Your task to perform on an android device: What is the news today? Image 0: 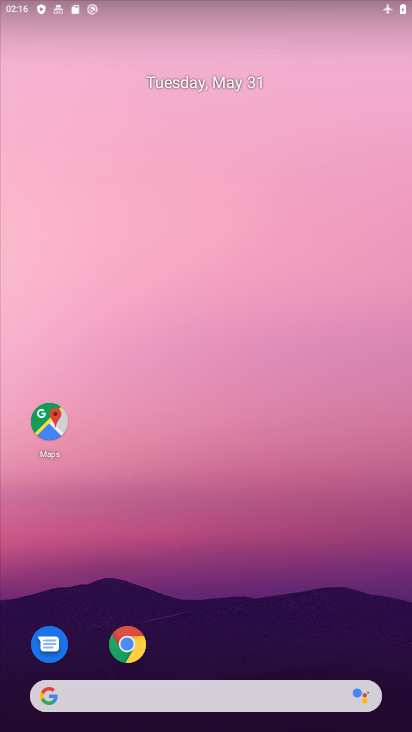
Step 0: drag from (250, 632) to (191, 202)
Your task to perform on an android device: What is the news today? Image 1: 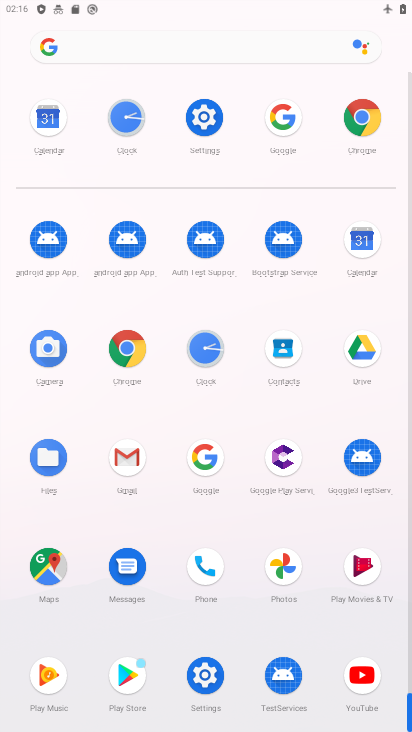
Step 1: click (120, 351)
Your task to perform on an android device: What is the news today? Image 2: 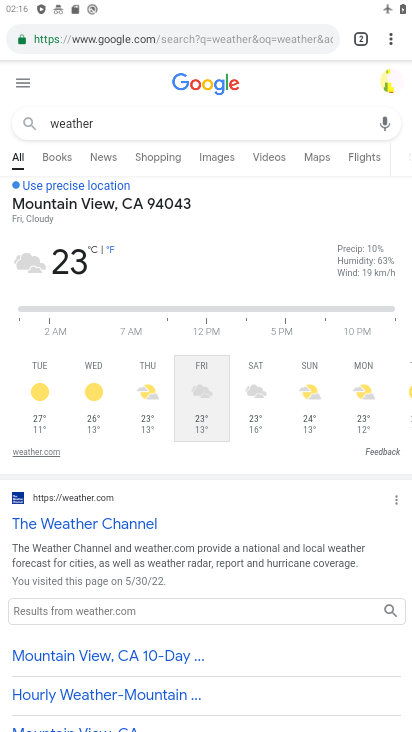
Step 2: click (211, 28)
Your task to perform on an android device: What is the news today? Image 3: 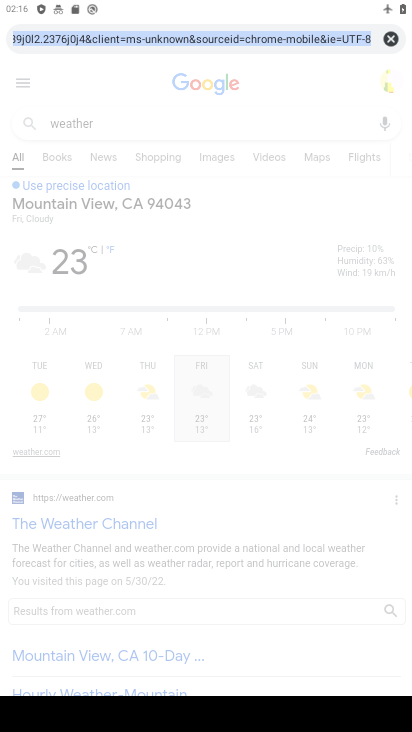
Step 3: type "news"
Your task to perform on an android device: What is the news today? Image 4: 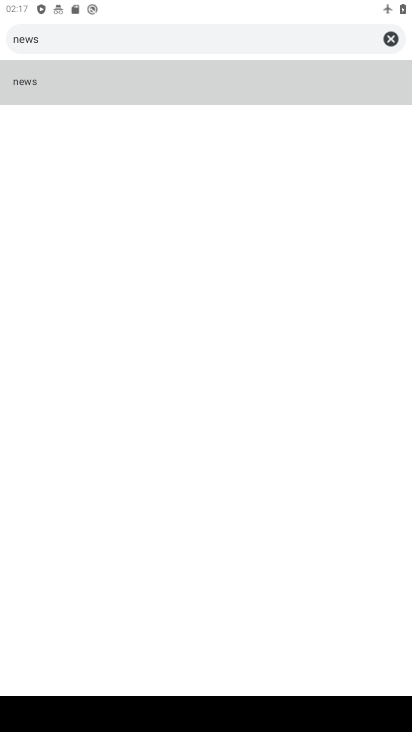
Step 4: click (31, 77)
Your task to perform on an android device: What is the news today? Image 5: 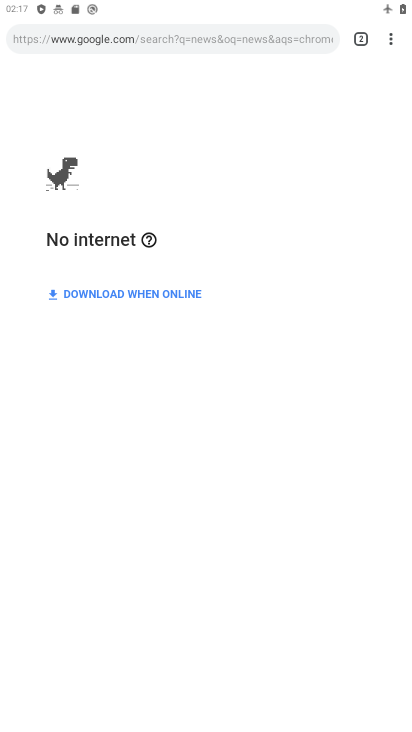
Step 5: task complete